Your task to perform on an android device: How much does the new iPad cost on eBay? Image 0: 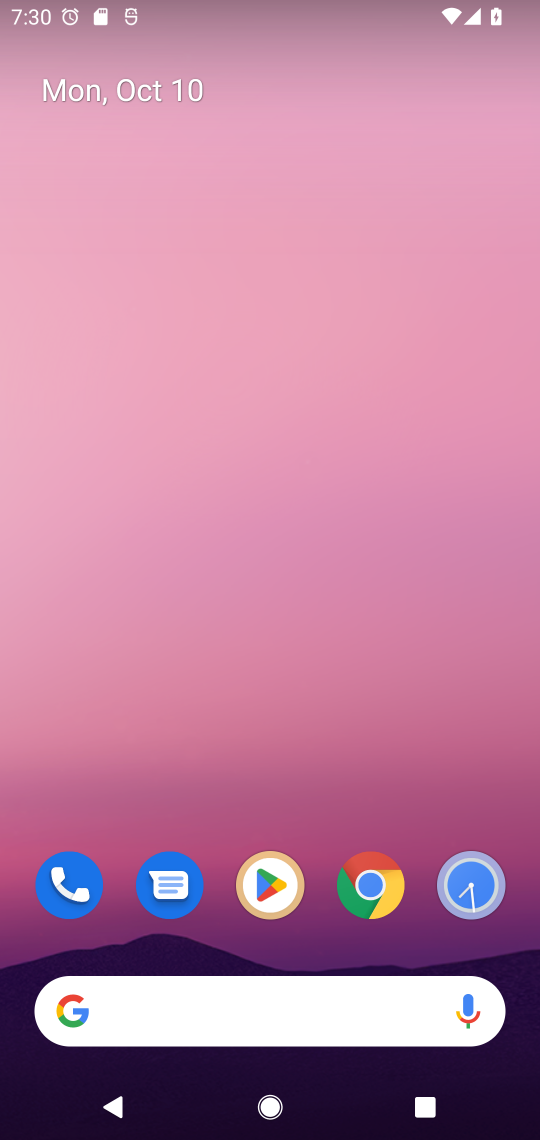
Step 0: click (398, 889)
Your task to perform on an android device: How much does the new iPad cost on eBay? Image 1: 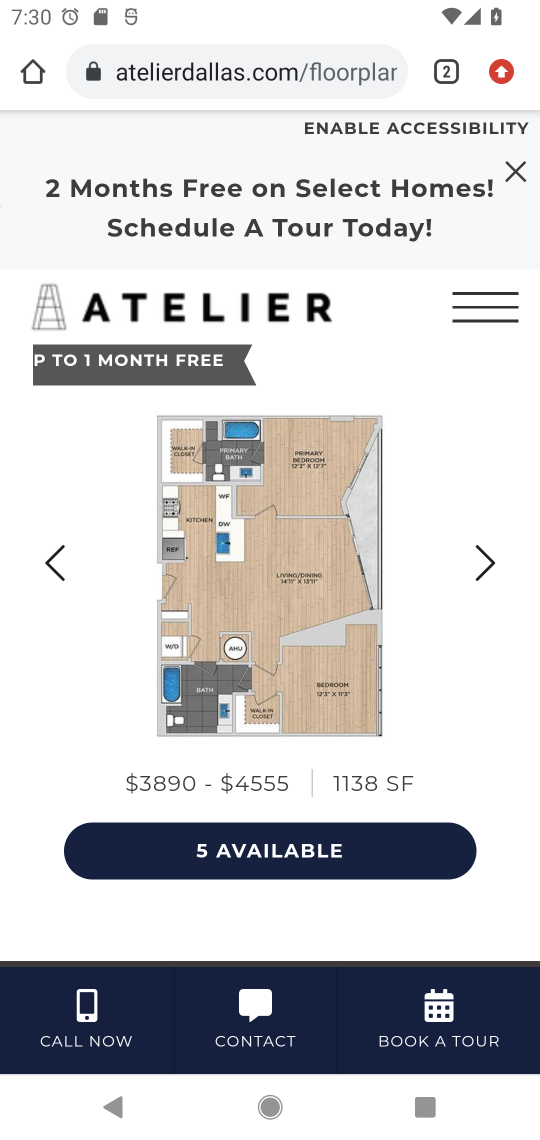
Step 1: click (279, 84)
Your task to perform on an android device: How much does the new iPad cost on eBay? Image 2: 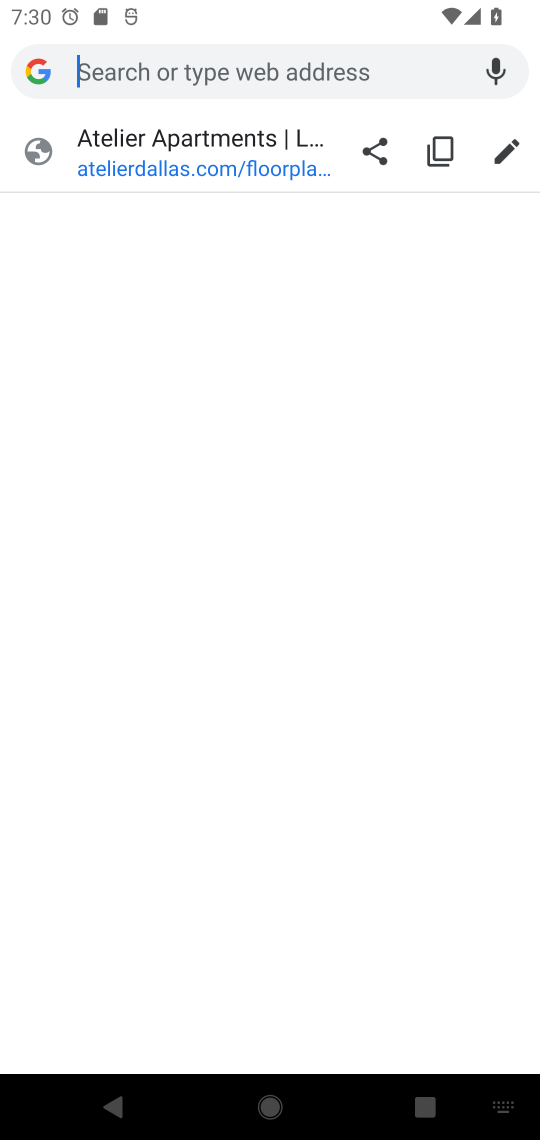
Step 2: type "new iPad cost on eBay"
Your task to perform on an android device: How much does the new iPad cost on eBay? Image 3: 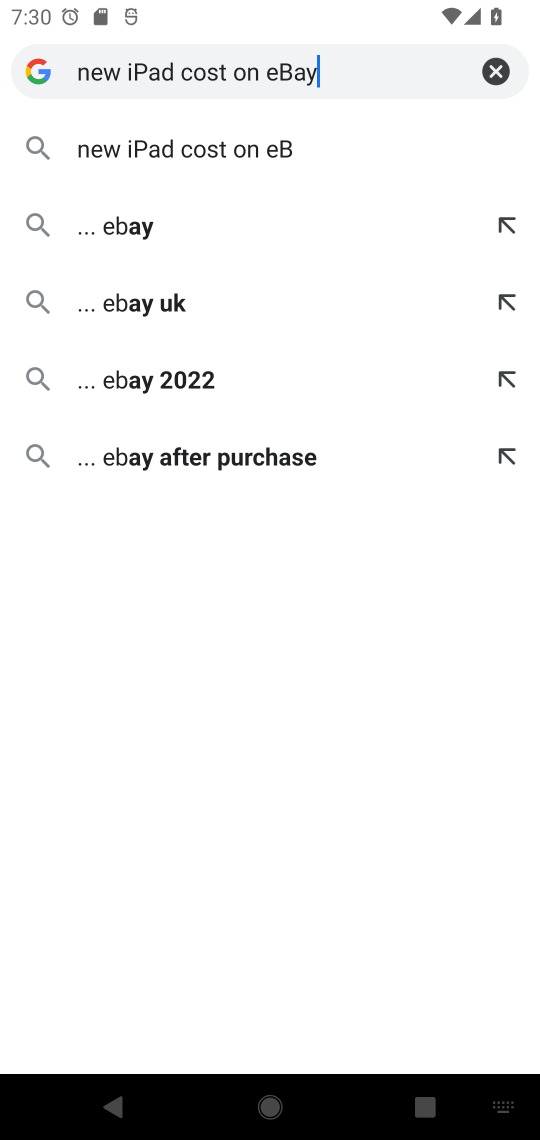
Step 3: type ""
Your task to perform on an android device: How much does the new iPad cost on eBay? Image 4: 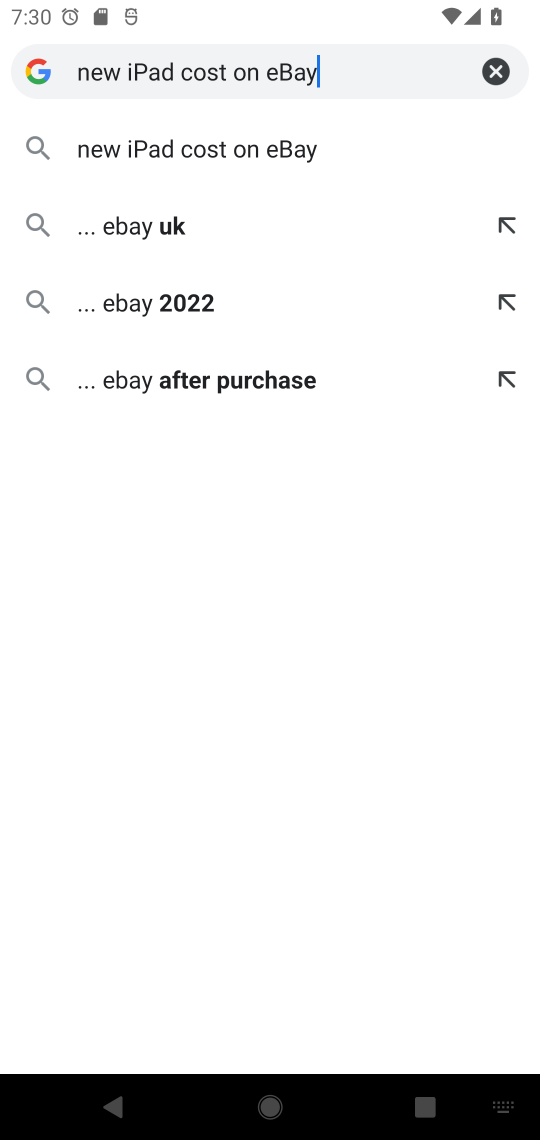
Step 4: click (251, 148)
Your task to perform on an android device: How much does the new iPad cost on eBay? Image 5: 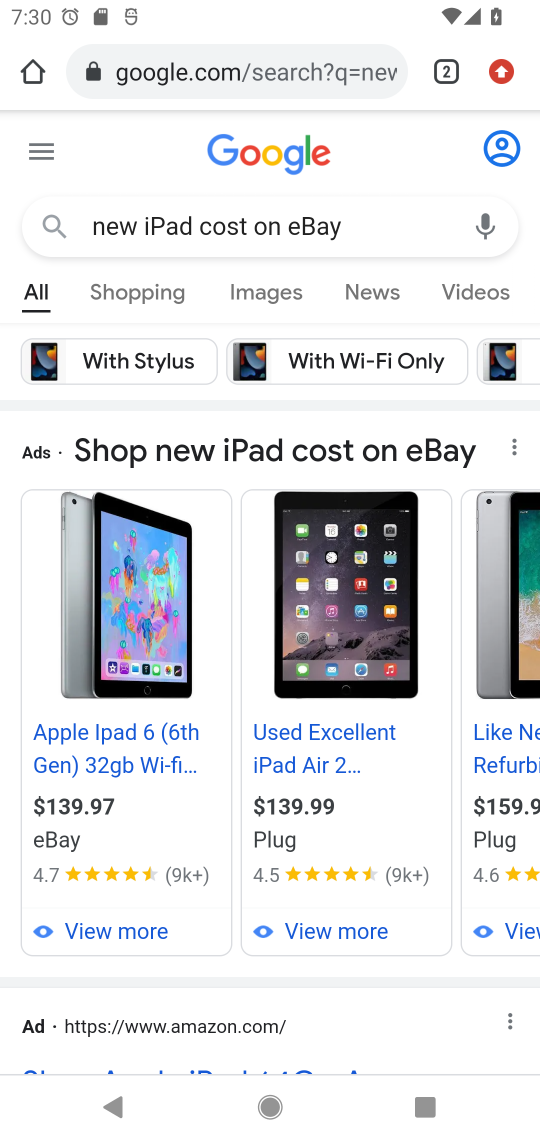
Step 5: drag from (273, 991) to (234, 601)
Your task to perform on an android device: How much does the new iPad cost on eBay? Image 6: 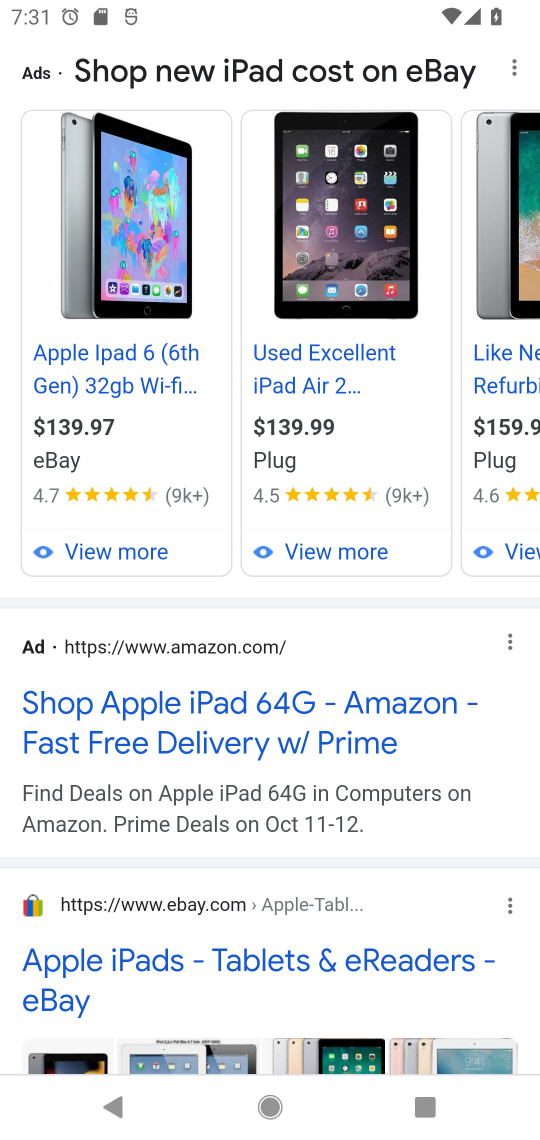
Step 6: click (339, 959)
Your task to perform on an android device: How much does the new iPad cost on eBay? Image 7: 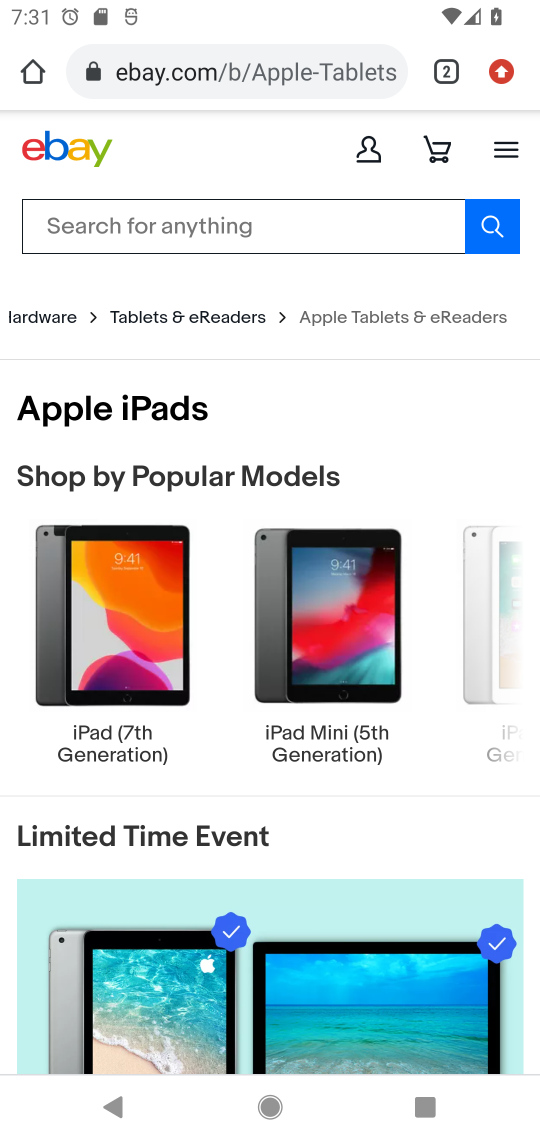
Step 7: task complete